Your task to perform on an android device: manage bookmarks in the chrome app Image 0: 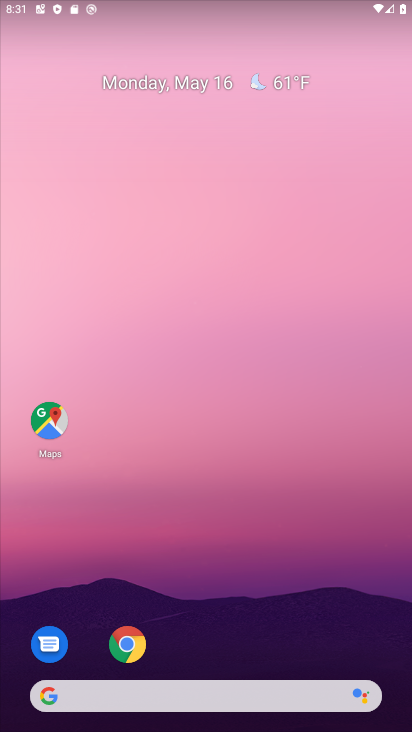
Step 0: click (127, 647)
Your task to perform on an android device: manage bookmarks in the chrome app Image 1: 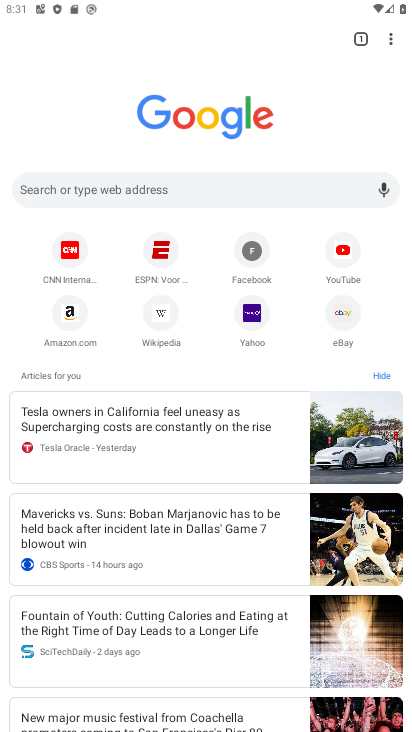
Step 1: click (387, 45)
Your task to perform on an android device: manage bookmarks in the chrome app Image 2: 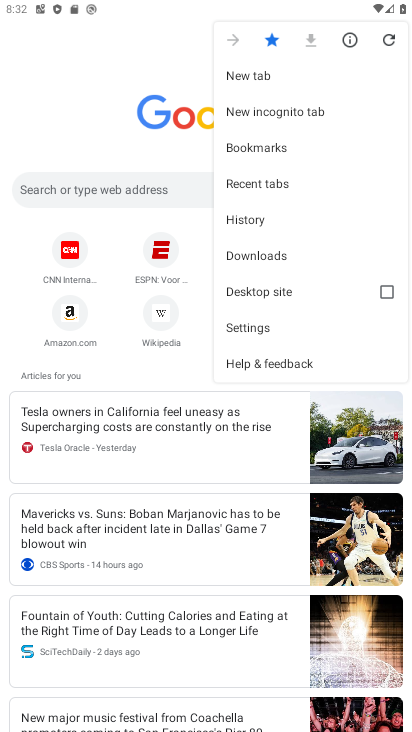
Step 2: click (278, 140)
Your task to perform on an android device: manage bookmarks in the chrome app Image 3: 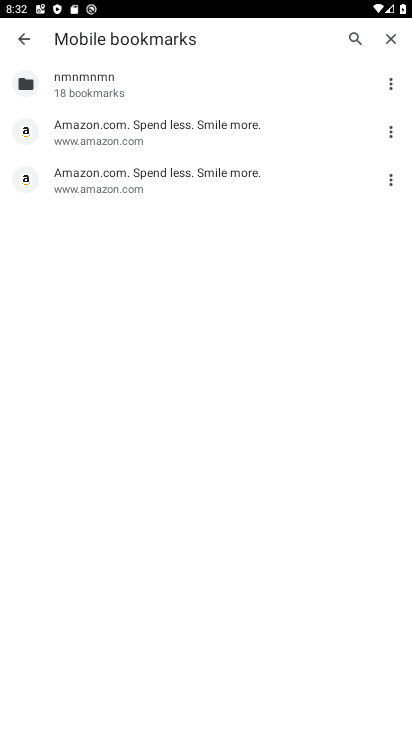
Step 3: click (387, 129)
Your task to perform on an android device: manage bookmarks in the chrome app Image 4: 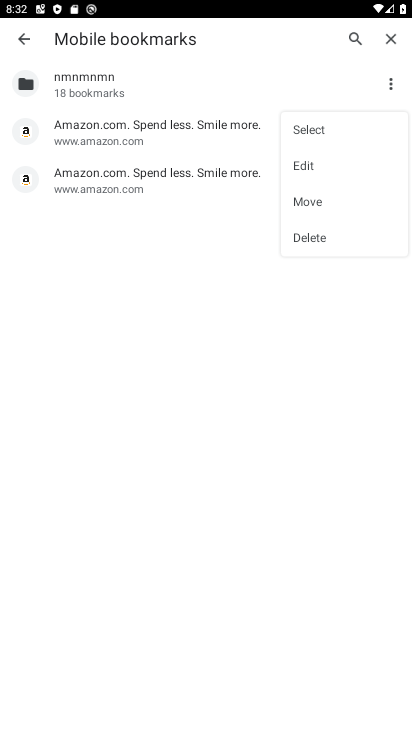
Step 4: click (302, 236)
Your task to perform on an android device: manage bookmarks in the chrome app Image 5: 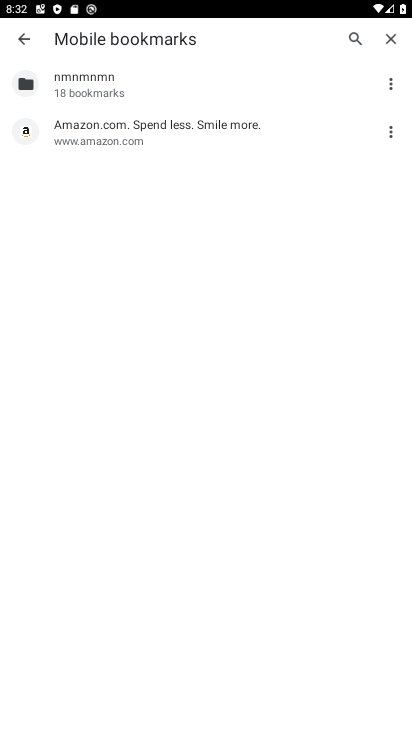
Step 5: task complete